Your task to perform on an android device: Show the shopping cart on amazon. Add usb-c to usb-a to the cart on amazon Image 0: 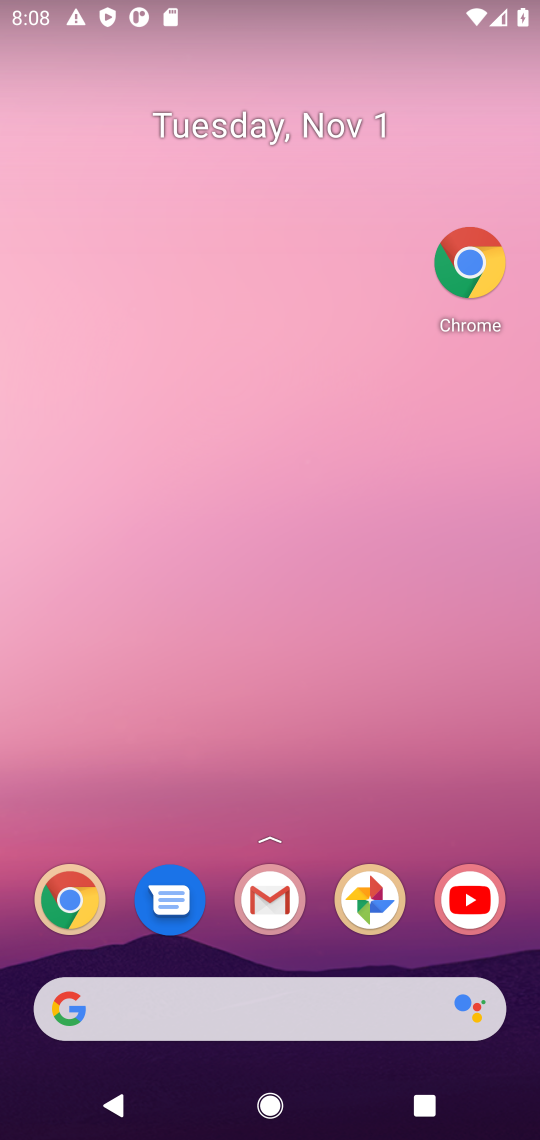
Step 0: drag from (319, 943) to (287, 51)
Your task to perform on an android device: Show the shopping cart on amazon. Add usb-c to usb-a to the cart on amazon Image 1: 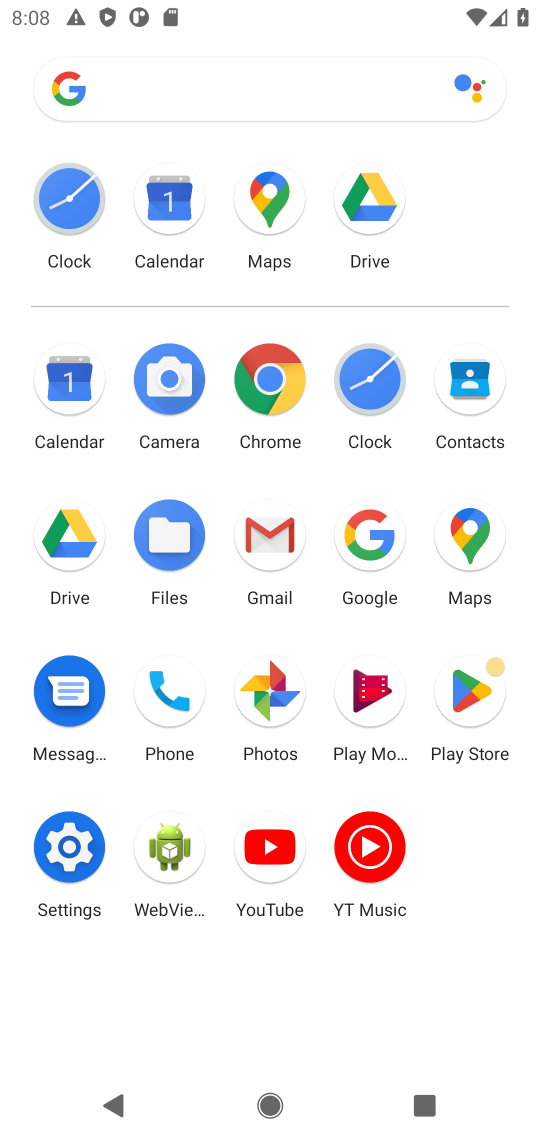
Step 1: click (271, 381)
Your task to perform on an android device: Show the shopping cart on amazon. Add usb-c to usb-a to the cart on amazon Image 2: 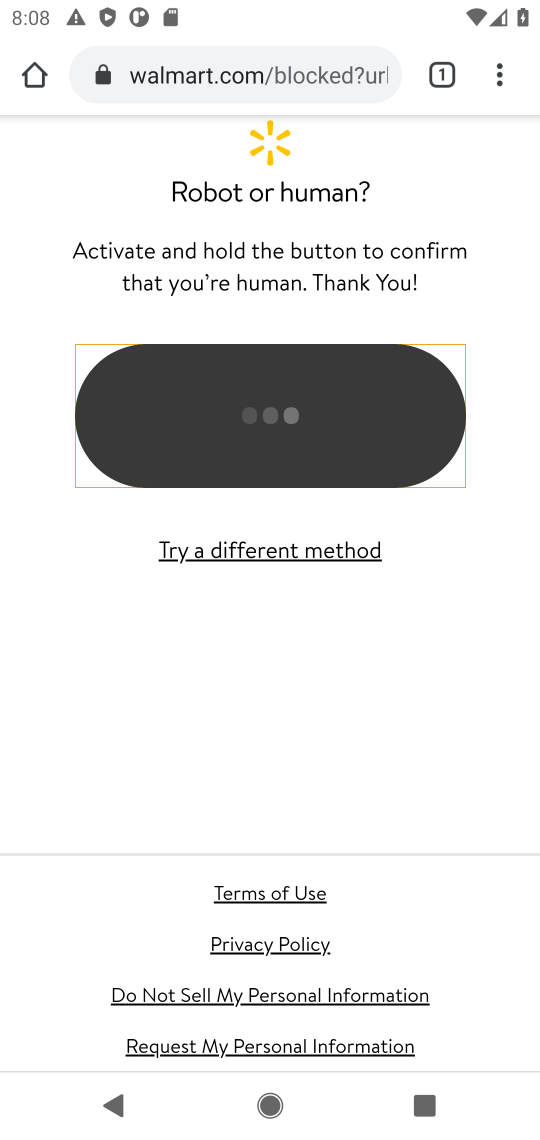
Step 2: click (259, 70)
Your task to perform on an android device: Show the shopping cart on amazon. Add usb-c to usb-a to the cart on amazon Image 3: 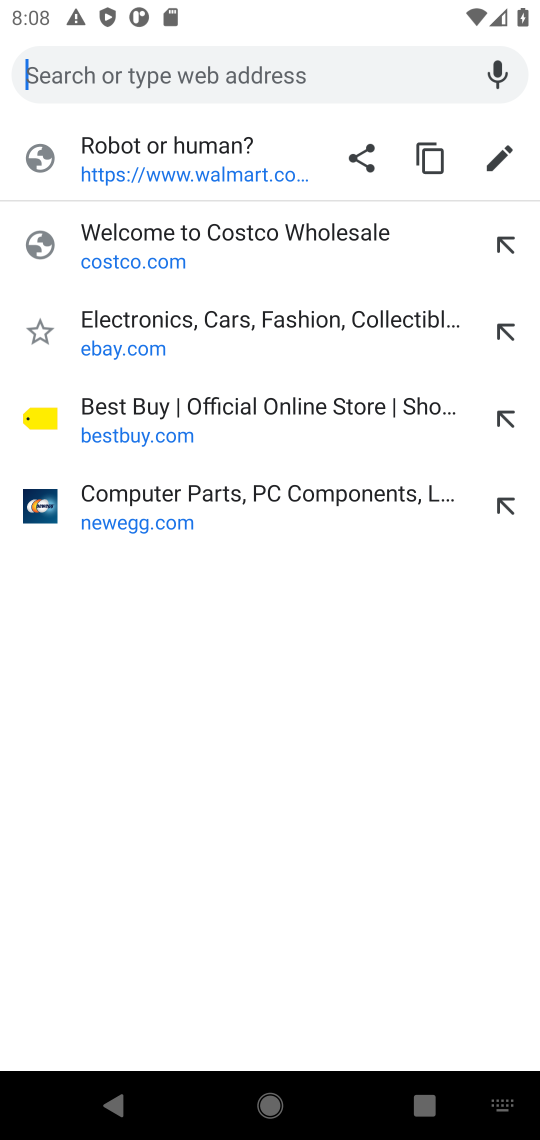
Step 3: type "amazon.com"
Your task to perform on an android device: Show the shopping cart on amazon. Add usb-c to usb-a to the cart on amazon Image 4: 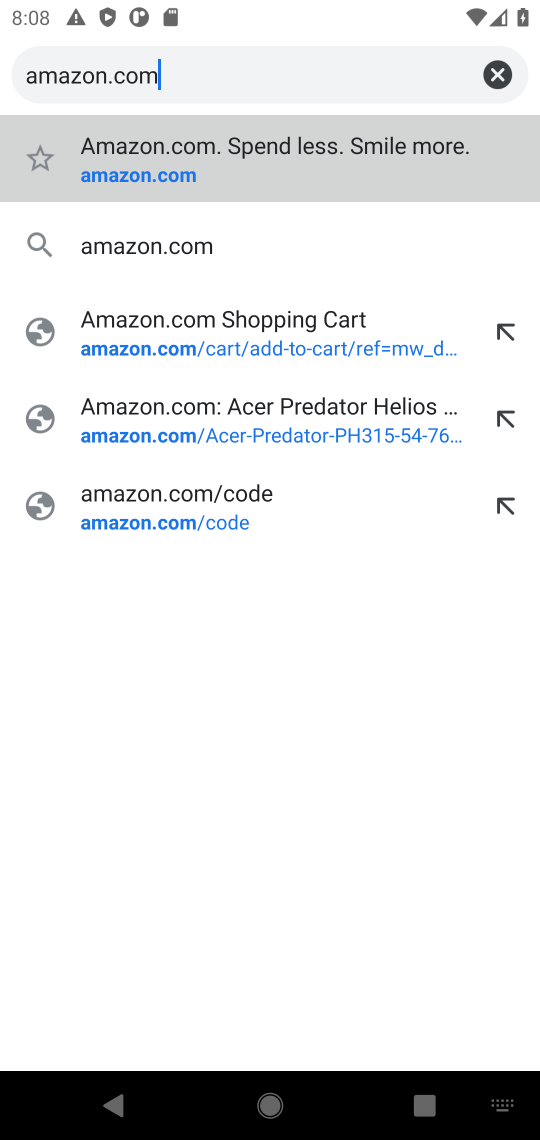
Step 4: press enter
Your task to perform on an android device: Show the shopping cart on amazon. Add usb-c to usb-a to the cart on amazon Image 5: 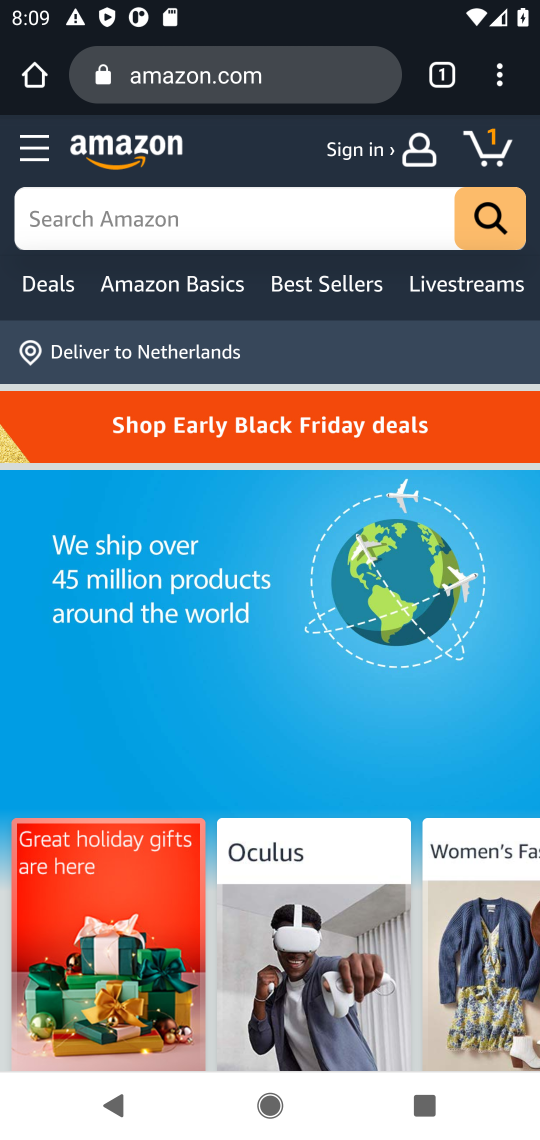
Step 5: click (320, 220)
Your task to perform on an android device: Show the shopping cart on amazon. Add usb-c to usb-a to the cart on amazon Image 6: 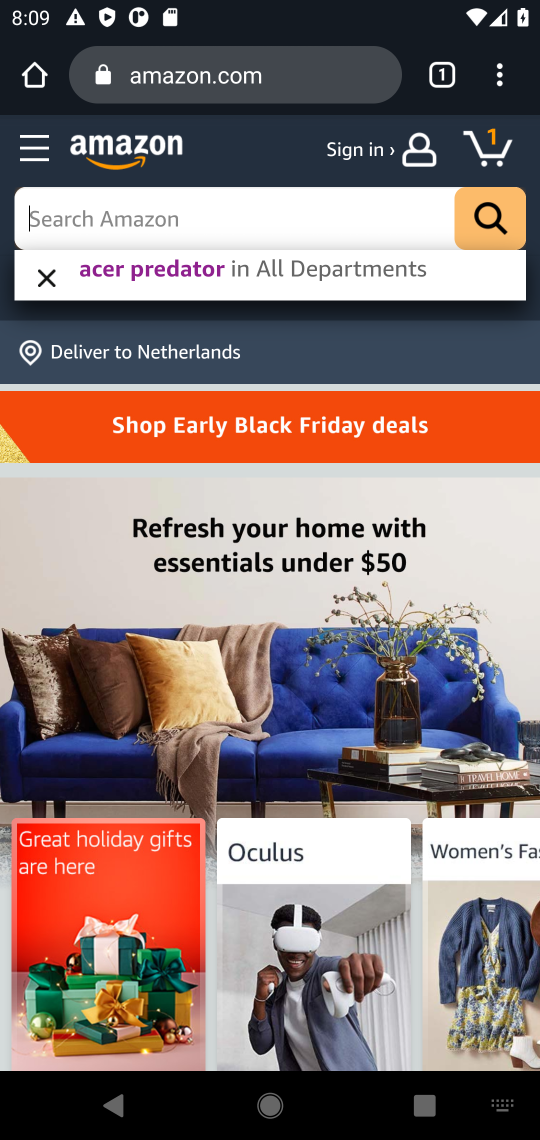
Step 6: type "usb-c to usb-a"
Your task to perform on an android device: Show the shopping cart on amazon. Add usb-c to usb-a to the cart on amazon Image 7: 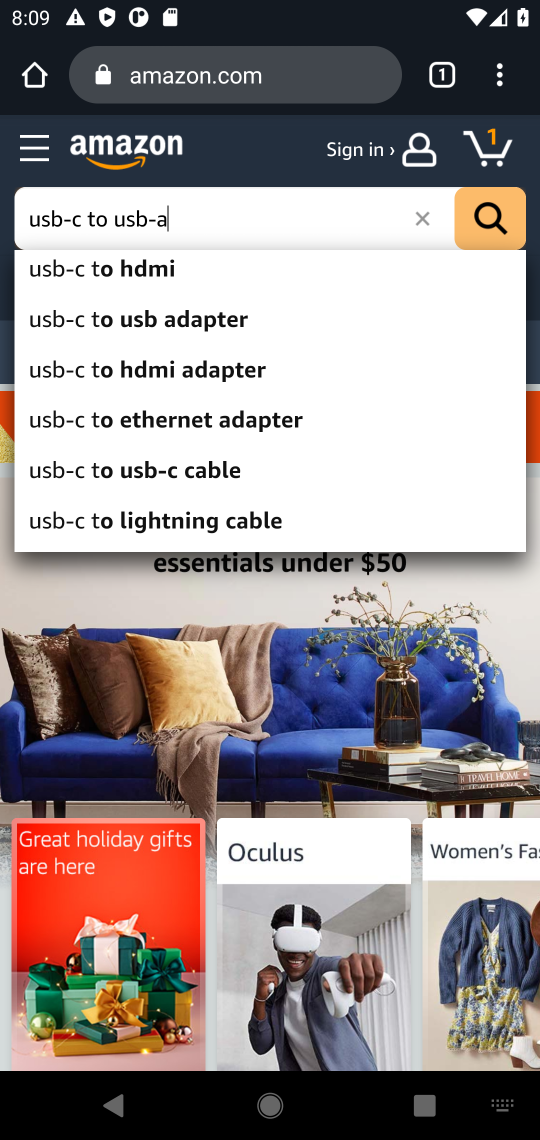
Step 7: press enter
Your task to perform on an android device: Show the shopping cart on amazon. Add usb-c to usb-a to the cart on amazon Image 8: 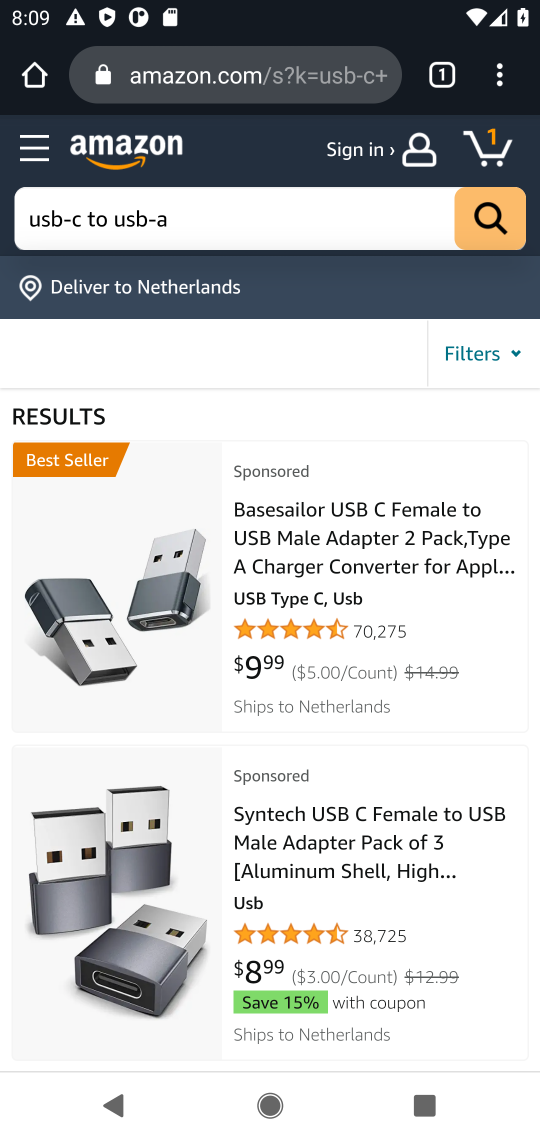
Step 8: drag from (249, 856) to (324, 364)
Your task to perform on an android device: Show the shopping cart on amazon. Add usb-c to usb-a to the cart on amazon Image 9: 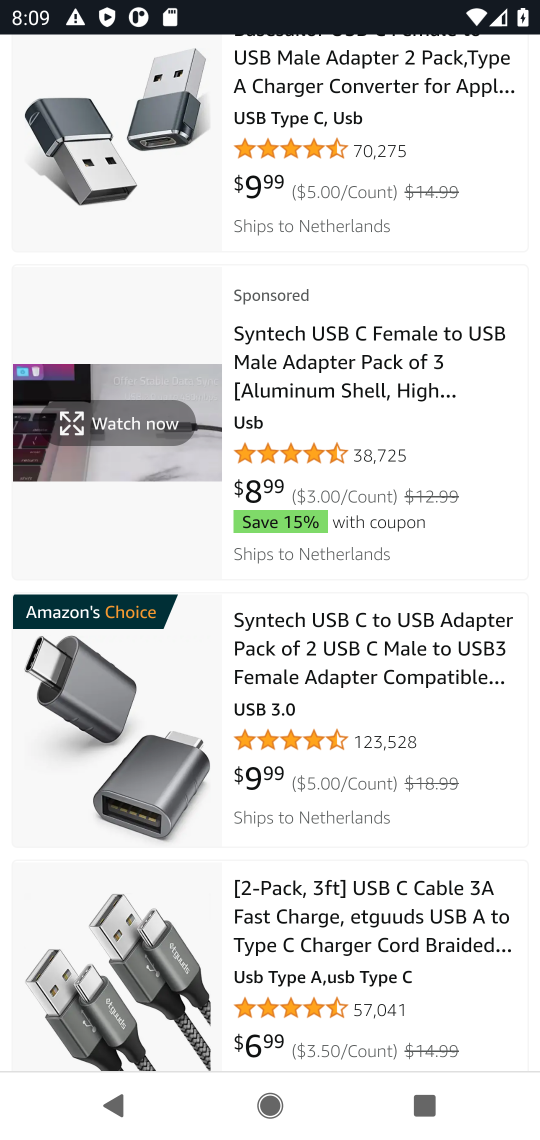
Step 9: click (300, 660)
Your task to perform on an android device: Show the shopping cart on amazon. Add usb-c to usb-a to the cart on amazon Image 10: 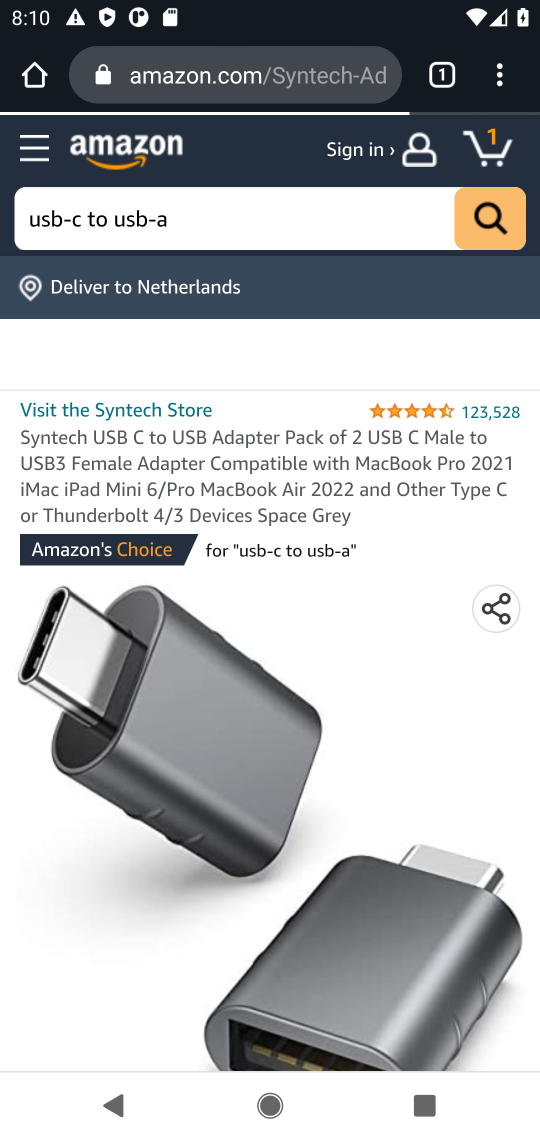
Step 10: drag from (365, 829) to (296, 183)
Your task to perform on an android device: Show the shopping cart on amazon. Add usb-c to usb-a to the cart on amazon Image 11: 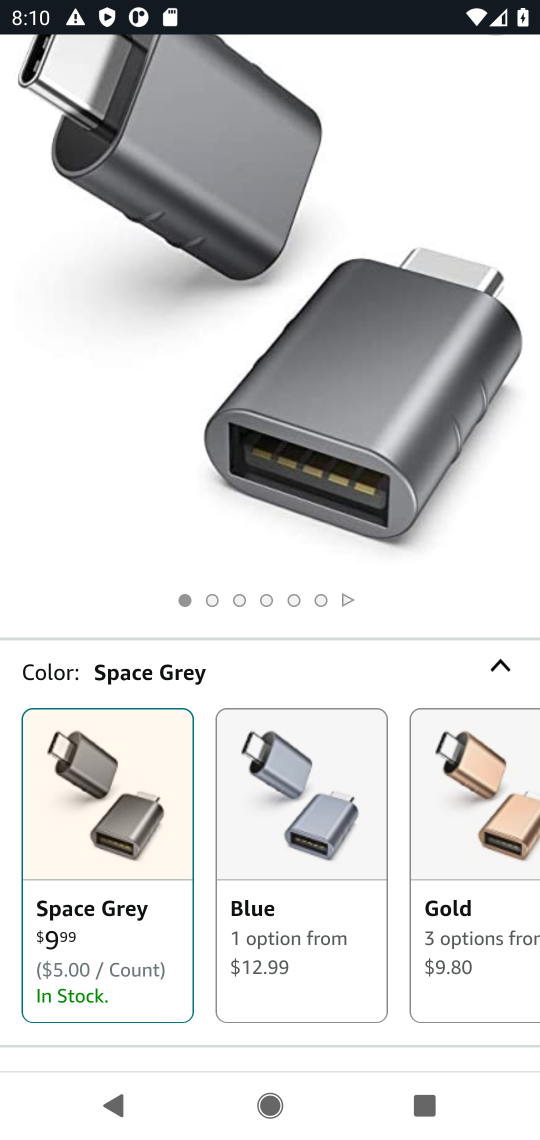
Step 11: drag from (257, 903) to (217, 303)
Your task to perform on an android device: Show the shopping cart on amazon. Add usb-c to usb-a to the cart on amazon Image 12: 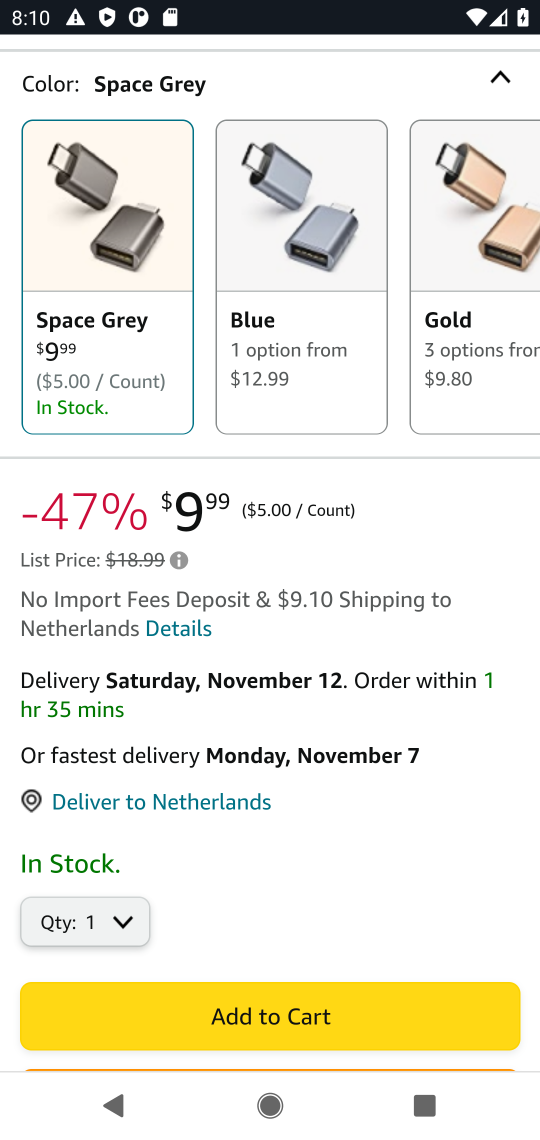
Step 12: click (335, 1011)
Your task to perform on an android device: Show the shopping cart on amazon. Add usb-c to usb-a to the cart on amazon Image 13: 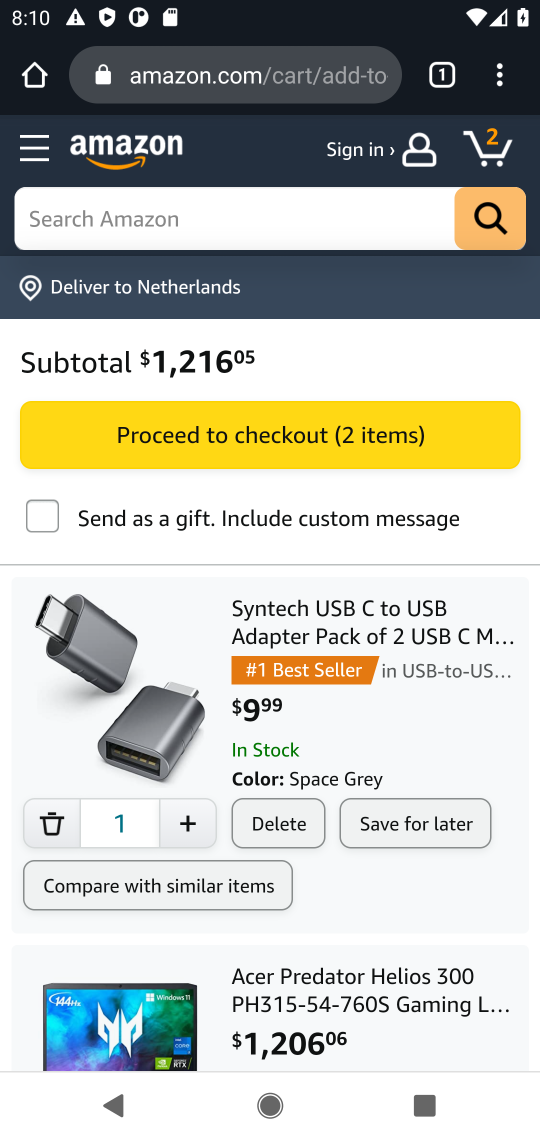
Step 13: task complete